Your task to perform on an android device: toggle wifi Image 0: 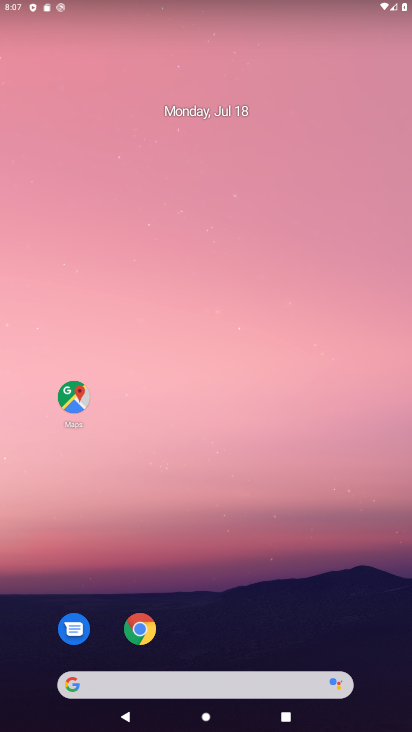
Step 0: drag from (226, 642) to (202, 167)
Your task to perform on an android device: toggle wifi Image 1: 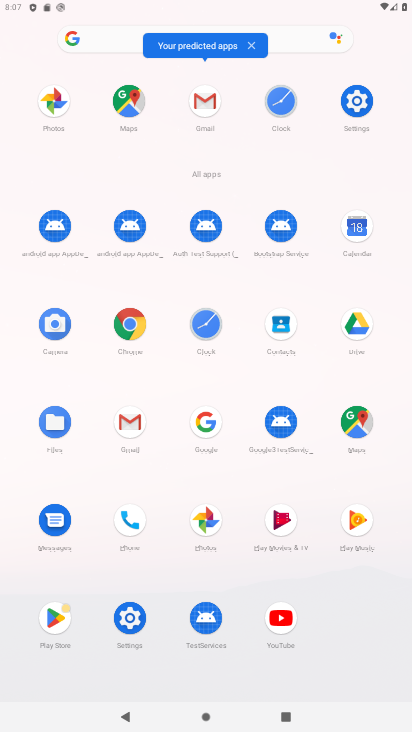
Step 1: click (361, 108)
Your task to perform on an android device: toggle wifi Image 2: 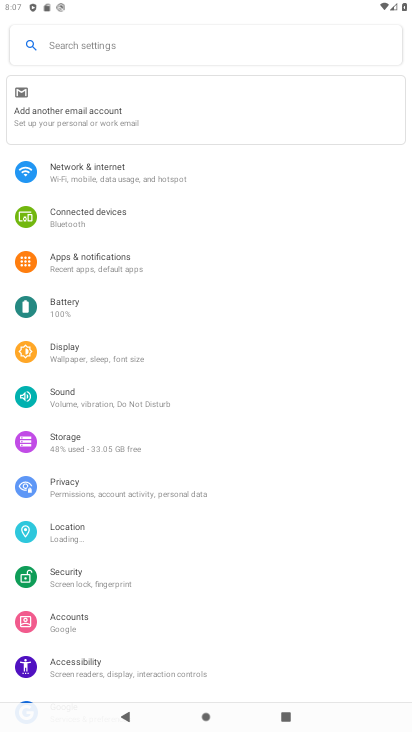
Step 2: click (88, 185)
Your task to perform on an android device: toggle wifi Image 3: 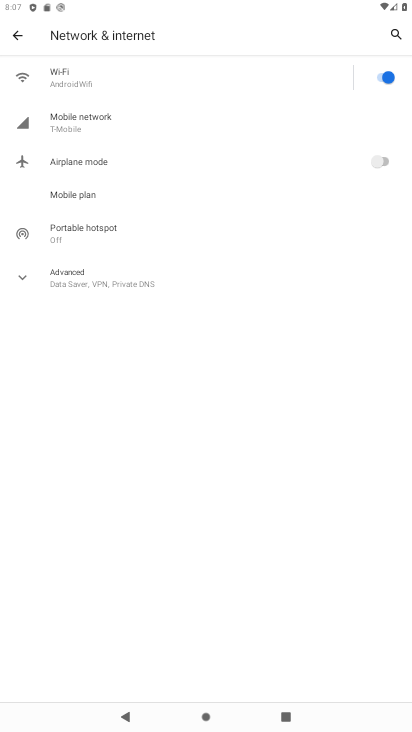
Step 3: click (367, 71)
Your task to perform on an android device: toggle wifi Image 4: 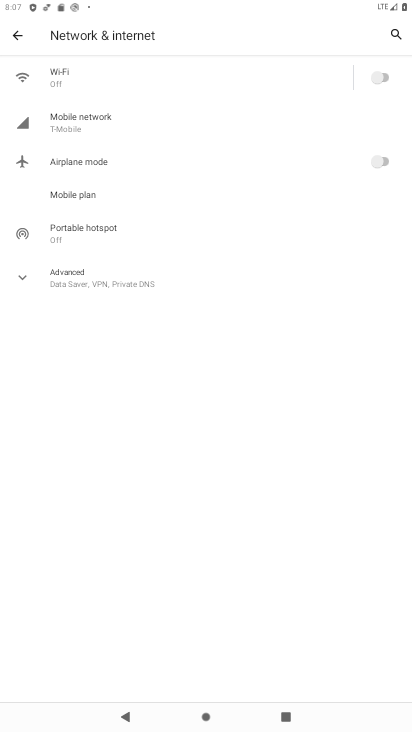
Step 4: task complete